Your task to perform on an android device: Open Wikipedia Image 0: 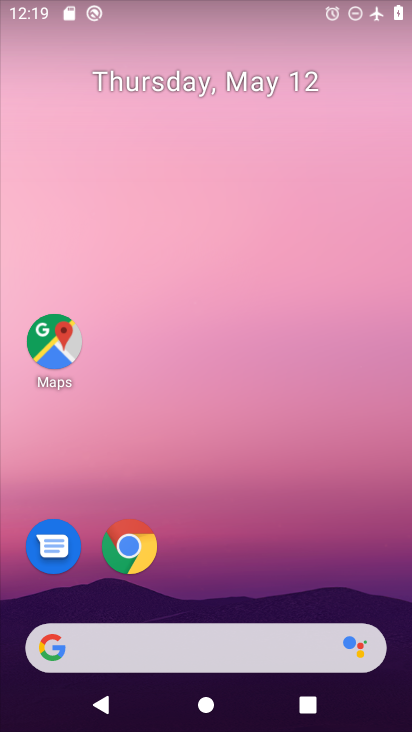
Step 0: drag from (384, 636) to (285, 59)
Your task to perform on an android device: Open Wikipedia Image 1: 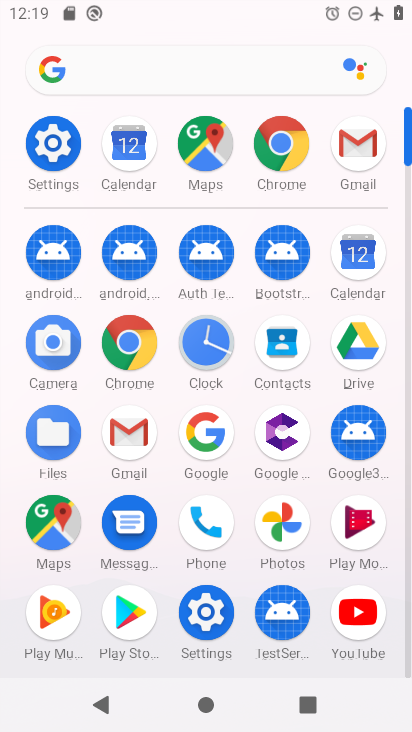
Step 1: click (135, 339)
Your task to perform on an android device: Open Wikipedia Image 2: 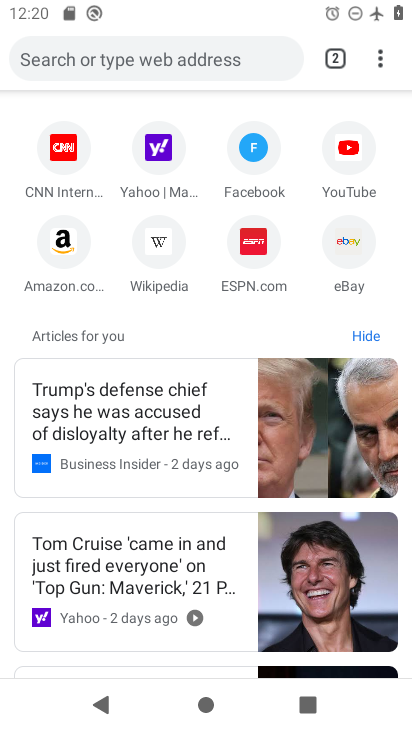
Step 2: click (153, 254)
Your task to perform on an android device: Open Wikipedia Image 3: 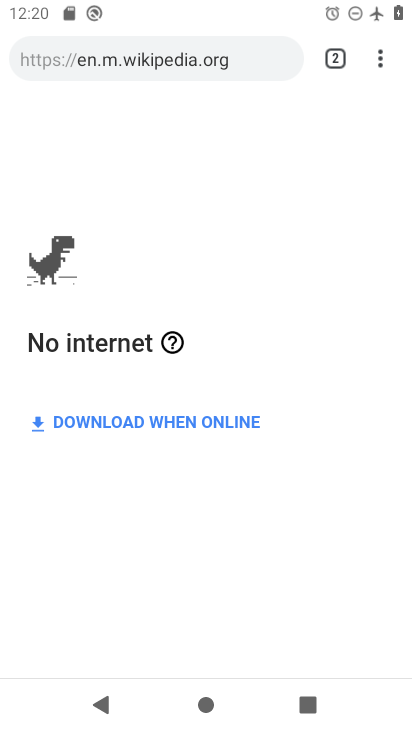
Step 3: task complete